Your task to perform on an android device: check android version Image 0: 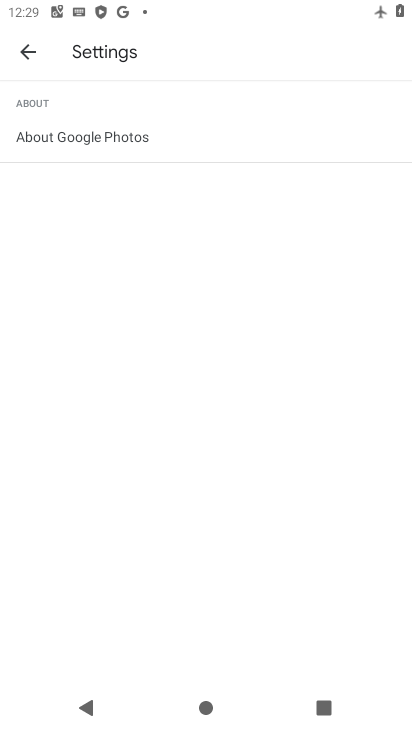
Step 0: press home button
Your task to perform on an android device: check android version Image 1: 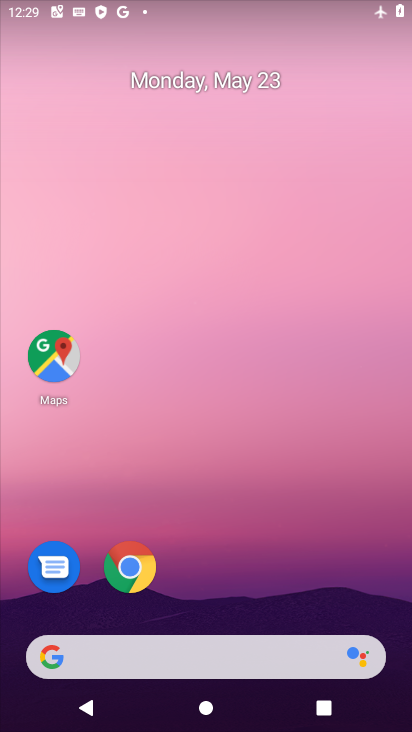
Step 1: drag from (237, 604) to (215, 44)
Your task to perform on an android device: check android version Image 2: 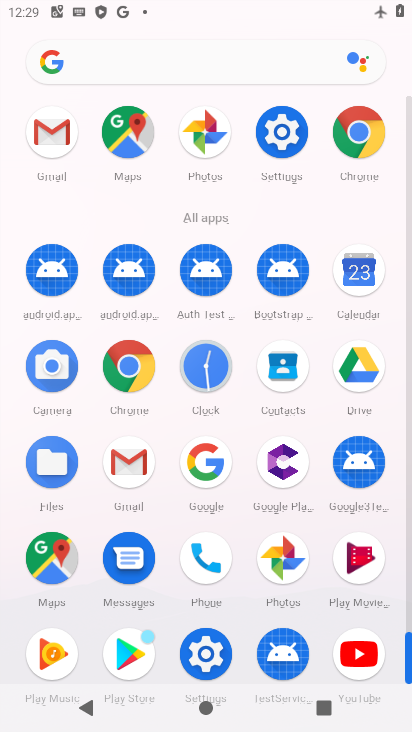
Step 2: click (279, 127)
Your task to perform on an android device: check android version Image 3: 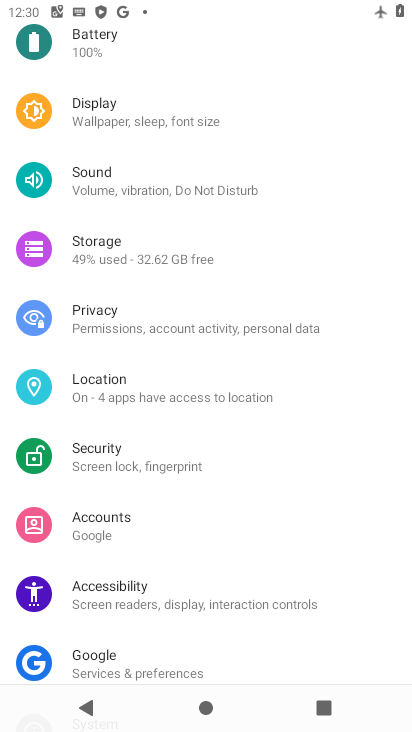
Step 3: task complete